Your task to perform on an android device: turn pop-ups on in chrome Image 0: 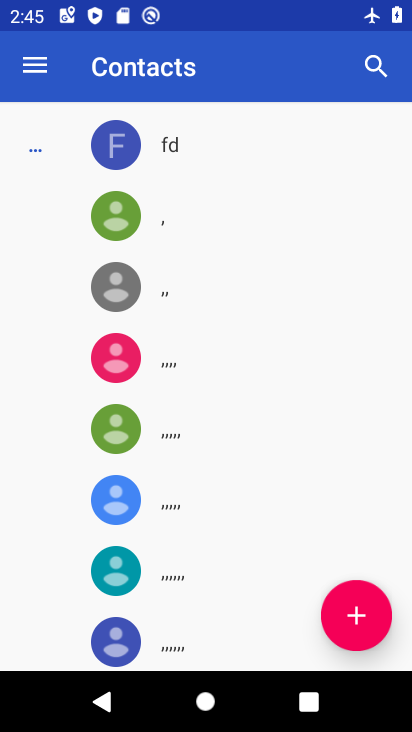
Step 0: press home button
Your task to perform on an android device: turn pop-ups on in chrome Image 1: 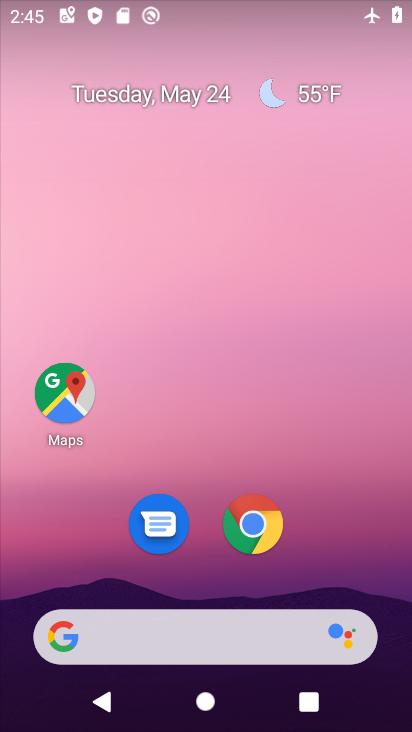
Step 1: click (265, 522)
Your task to perform on an android device: turn pop-ups on in chrome Image 2: 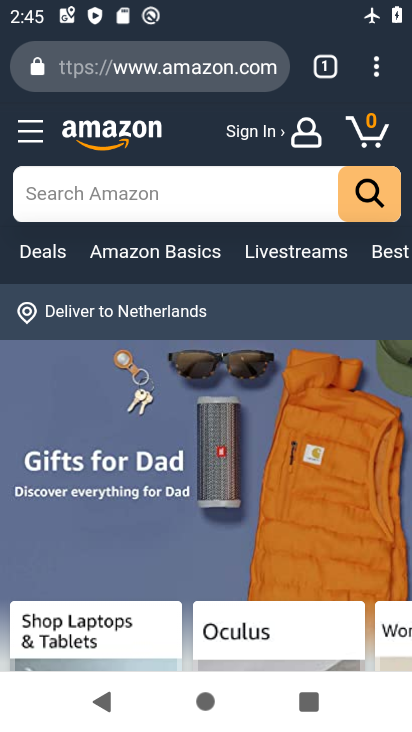
Step 2: click (380, 67)
Your task to perform on an android device: turn pop-ups on in chrome Image 3: 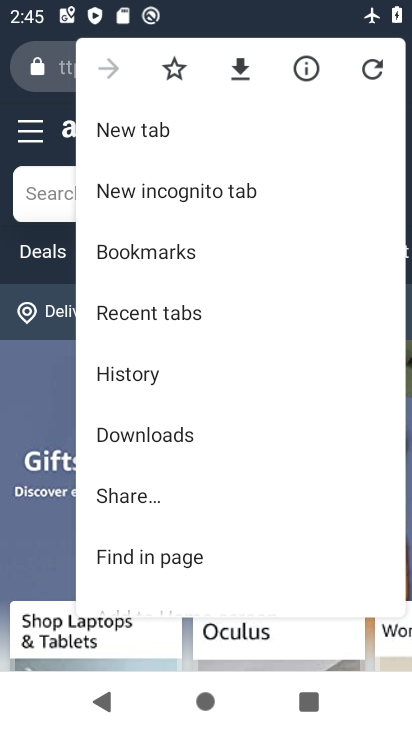
Step 3: drag from (280, 491) to (306, 152)
Your task to perform on an android device: turn pop-ups on in chrome Image 4: 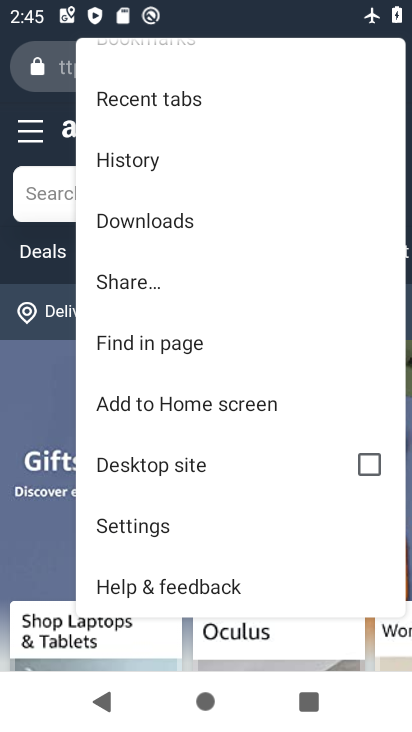
Step 4: click (177, 523)
Your task to perform on an android device: turn pop-ups on in chrome Image 5: 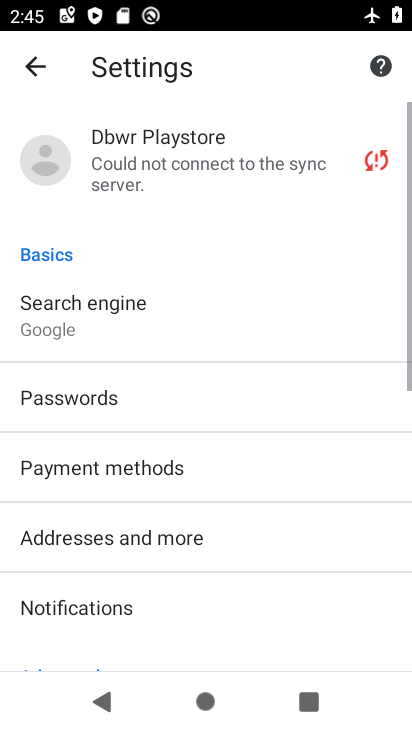
Step 5: drag from (198, 552) to (219, 170)
Your task to perform on an android device: turn pop-ups on in chrome Image 6: 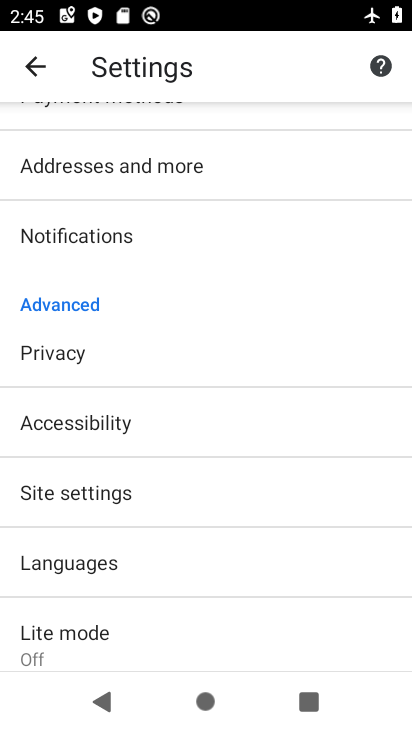
Step 6: click (177, 503)
Your task to perform on an android device: turn pop-ups on in chrome Image 7: 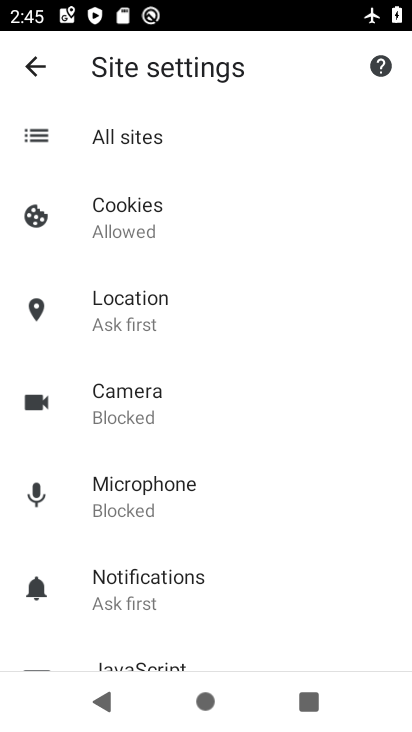
Step 7: drag from (268, 493) to (291, 272)
Your task to perform on an android device: turn pop-ups on in chrome Image 8: 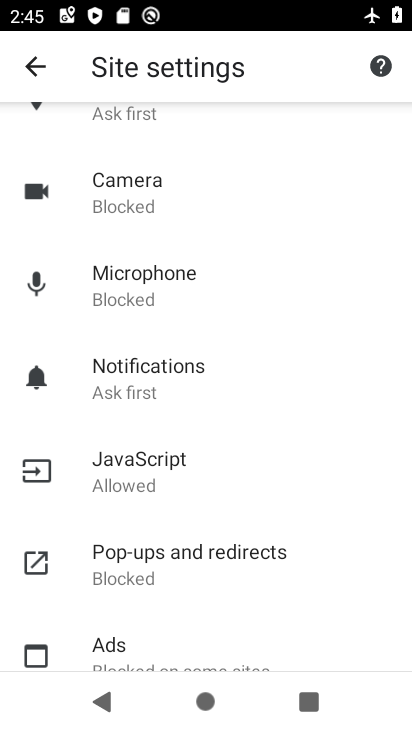
Step 8: click (207, 565)
Your task to perform on an android device: turn pop-ups on in chrome Image 9: 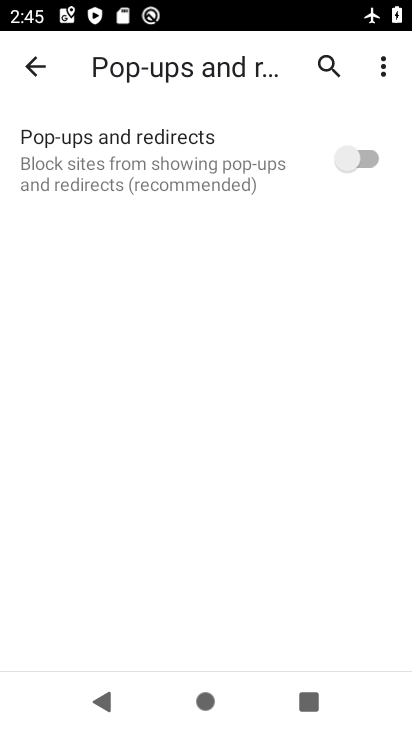
Step 9: click (361, 150)
Your task to perform on an android device: turn pop-ups on in chrome Image 10: 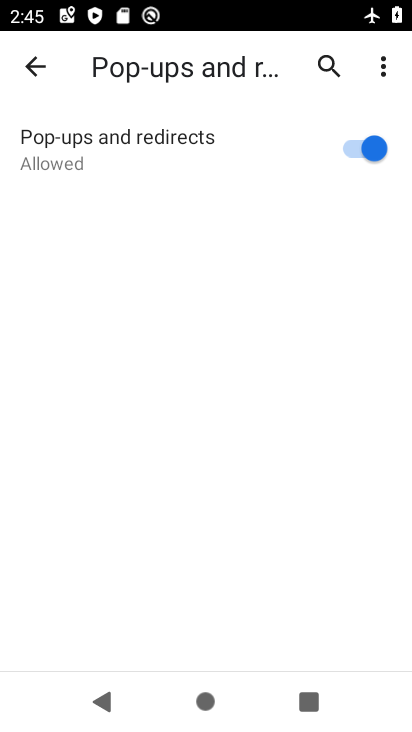
Step 10: task complete